Your task to perform on an android device: empty trash in google photos Image 0: 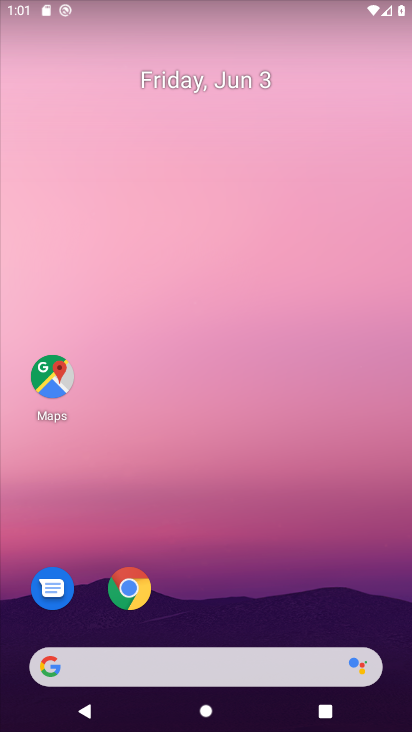
Step 0: drag from (252, 615) to (212, 303)
Your task to perform on an android device: empty trash in google photos Image 1: 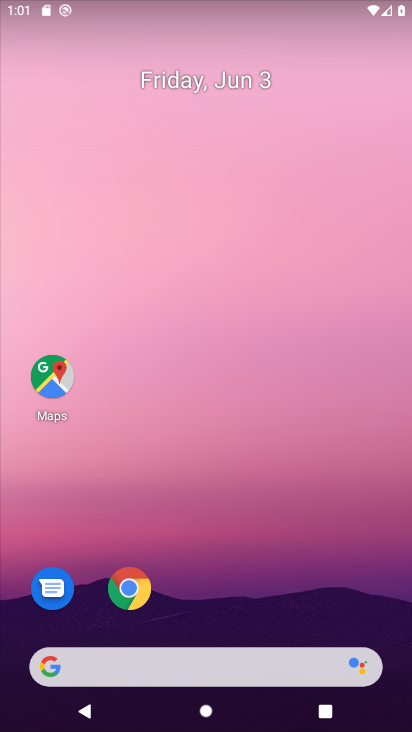
Step 1: drag from (207, 608) to (169, 311)
Your task to perform on an android device: empty trash in google photos Image 2: 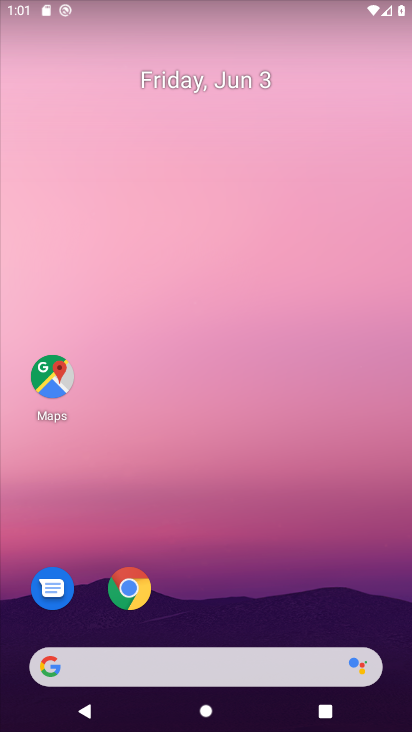
Step 2: drag from (237, 608) to (170, 141)
Your task to perform on an android device: empty trash in google photos Image 3: 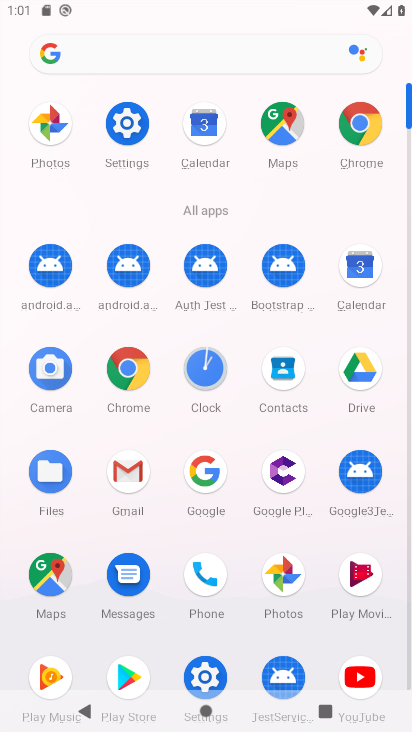
Step 3: click (55, 131)
Your task to perform on an android device: empty trash in google photos Image 4: 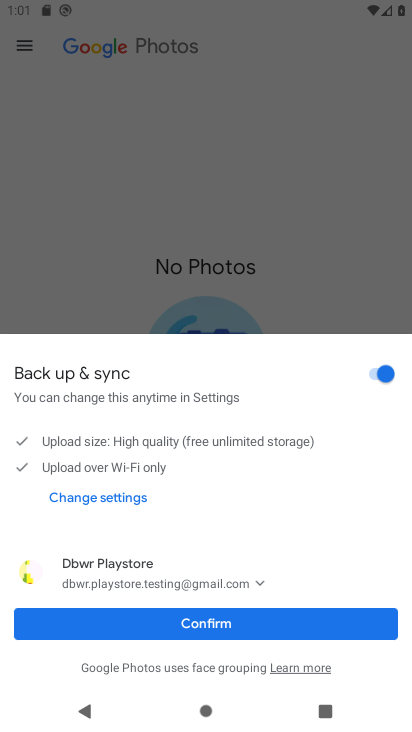
Step 4: click (248, 627)
Your task to perform on an android device: empty trash in google photos Image 5: 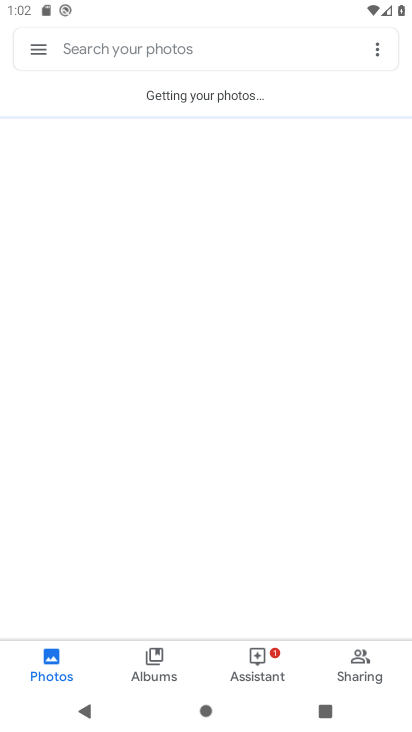
Step 5: click (42, 52)
Your task to perform on an android device: empty trash in google photos Image 6: 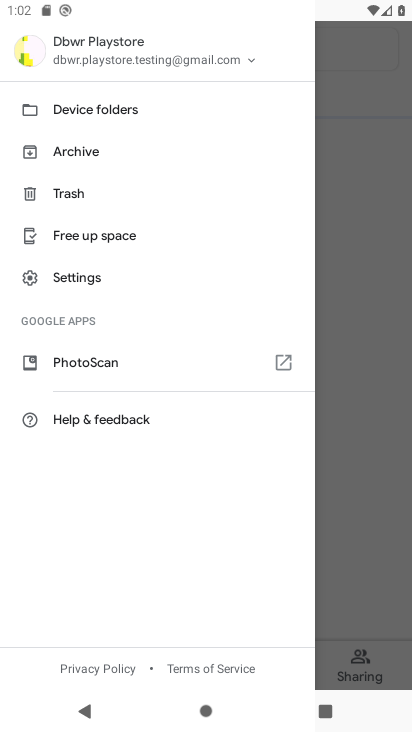
Step 6: click (90, 189)
Your task to perform on an android device: empty trash in google photos Image 7: 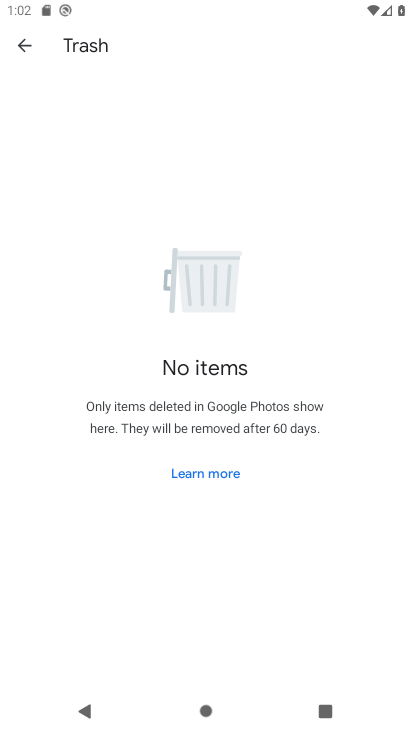
Step 7: task complete